Your task to perform on an android device: Open privacy settings Image 0: 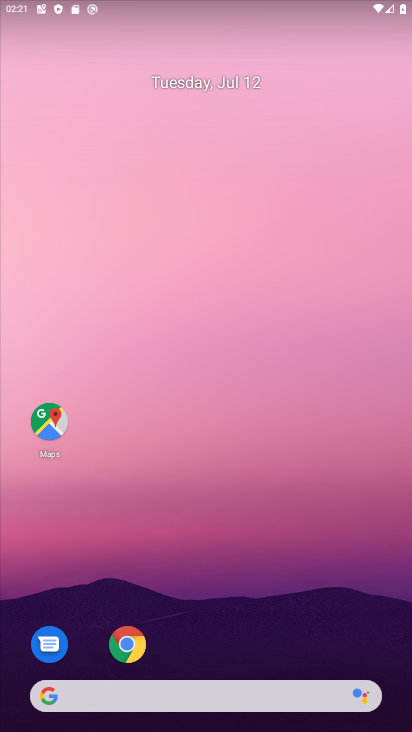
Step 0: drag from (210, 678) to (206, 188)
Your task to perform on an android device: Open privacy settings Image 1: 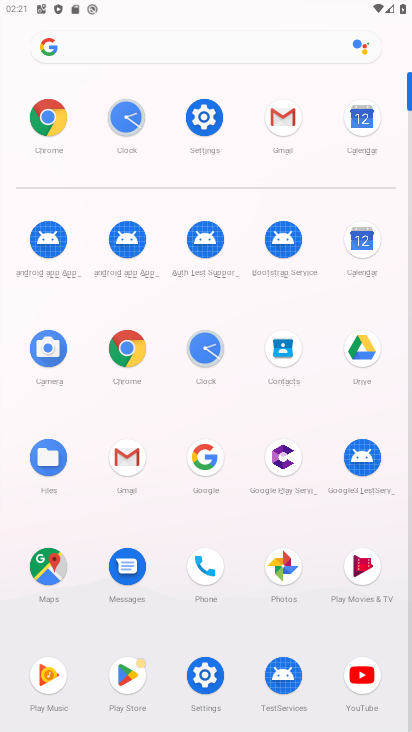
Step 1: click (204, 119)
Your task to perform on an android device: Open privacy settings Image 2: 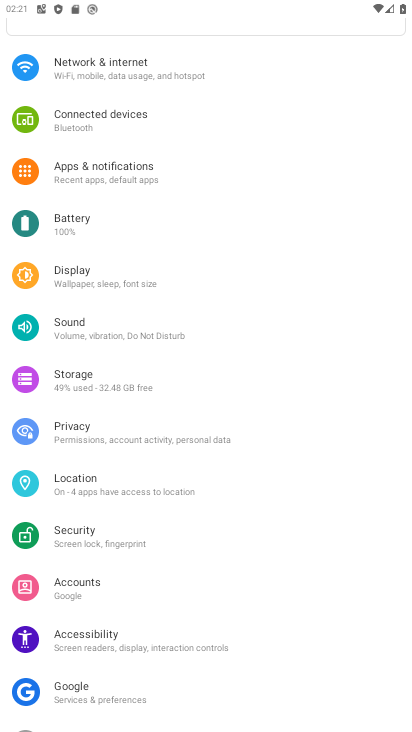
Step 2: click (66, 416)
Your task to perform on an android device: Open privacy settings Image 3: 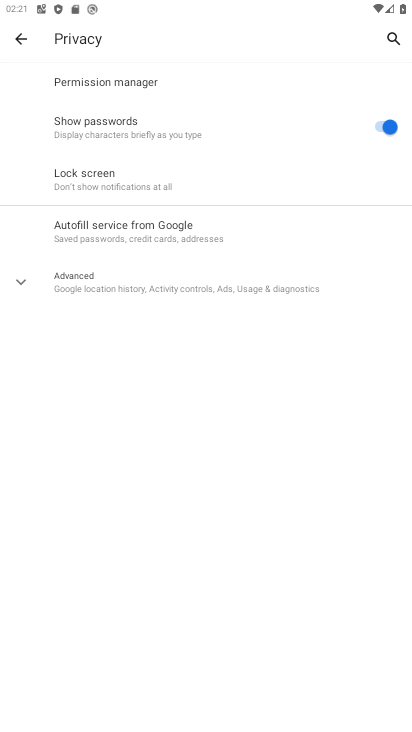
Step 3: task complete